Your task to perform on an android device: toggle notifications settings in the gmail app Image 0: 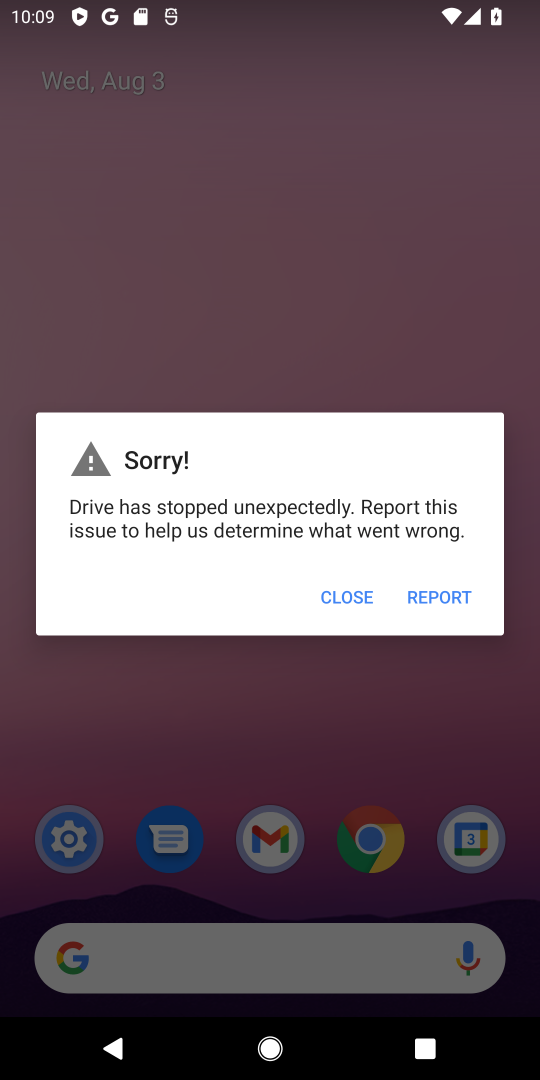
Step 0: click (332, 590)
Your task to perform on an android device: toggle notifications settings in the gmail app Image 1: 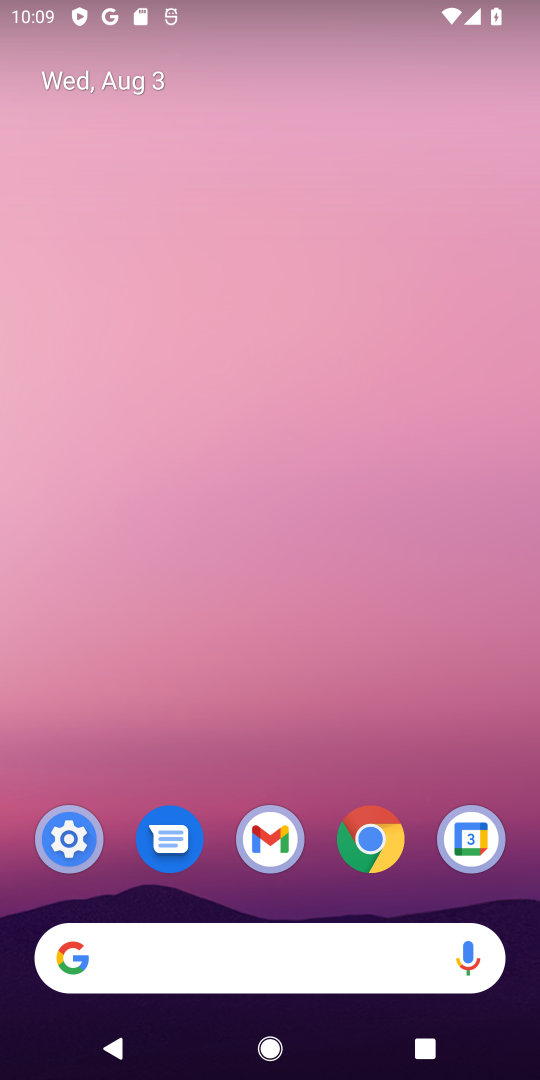
Step 1: click (282, 787)
Your task to perform on an android device: toggle notifications settings in the gmail app Image 2: 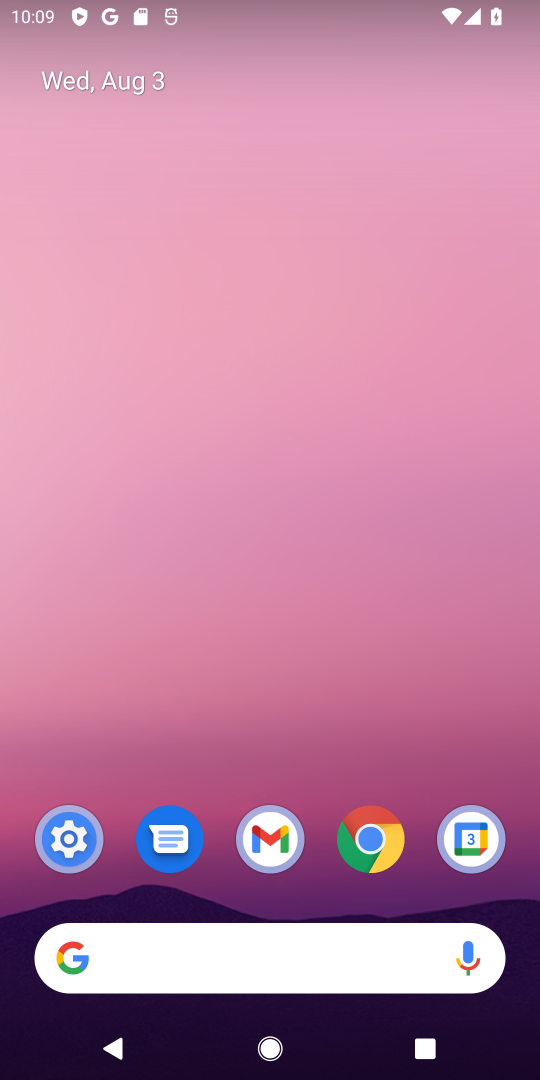
Step 2: click (268, 844)
Your task to perform on an android device: toggle notifications settings in the gmail app Image 3: 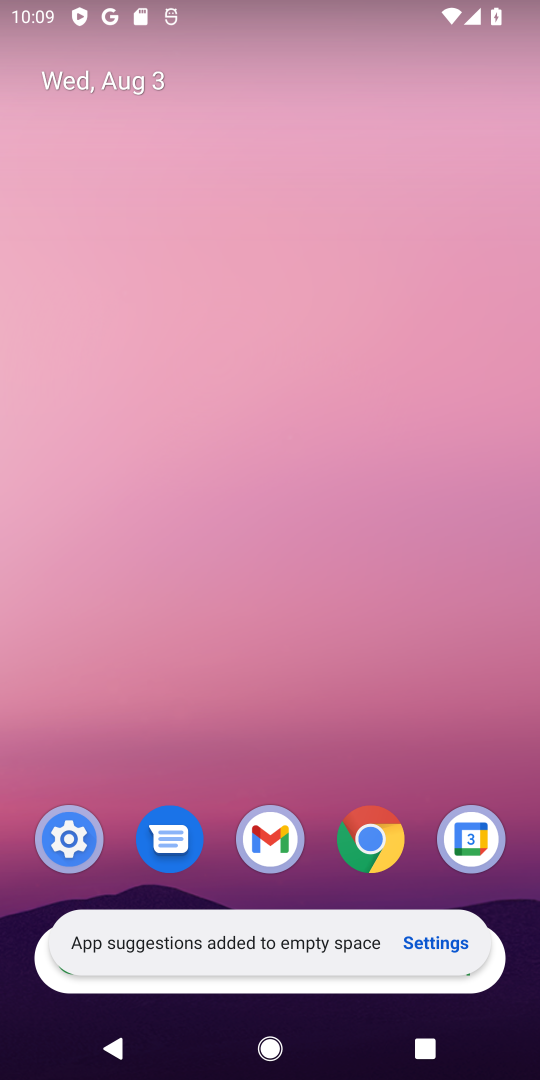
Step 3: click (272, 843)
Your task to perform on an android device: toggle notifications settings in the gmail app Image 4: 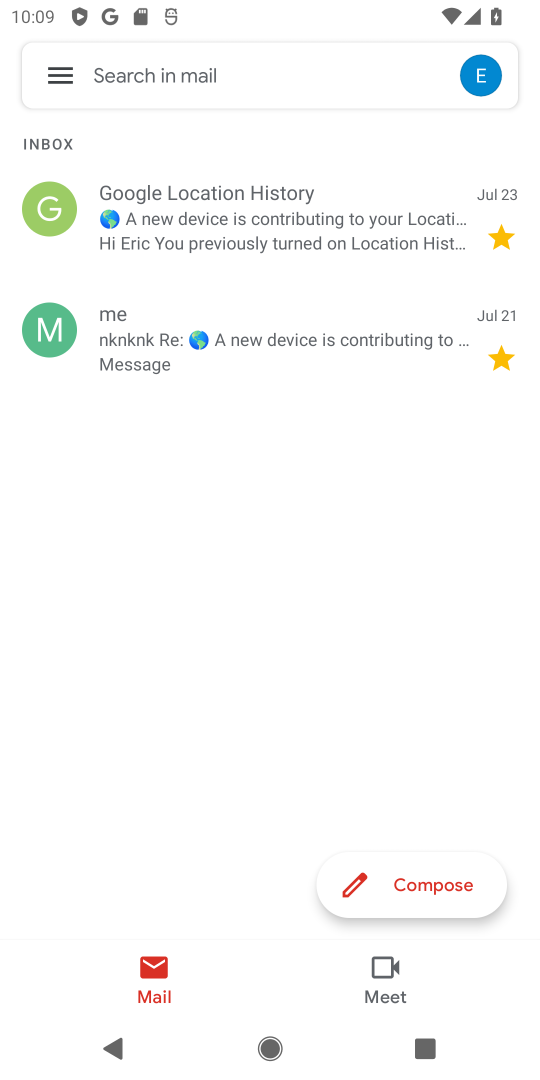
Step 4: click (58, 75)
Your task to perform on an android device: toggle notifications settings in the gmail app Image 5: 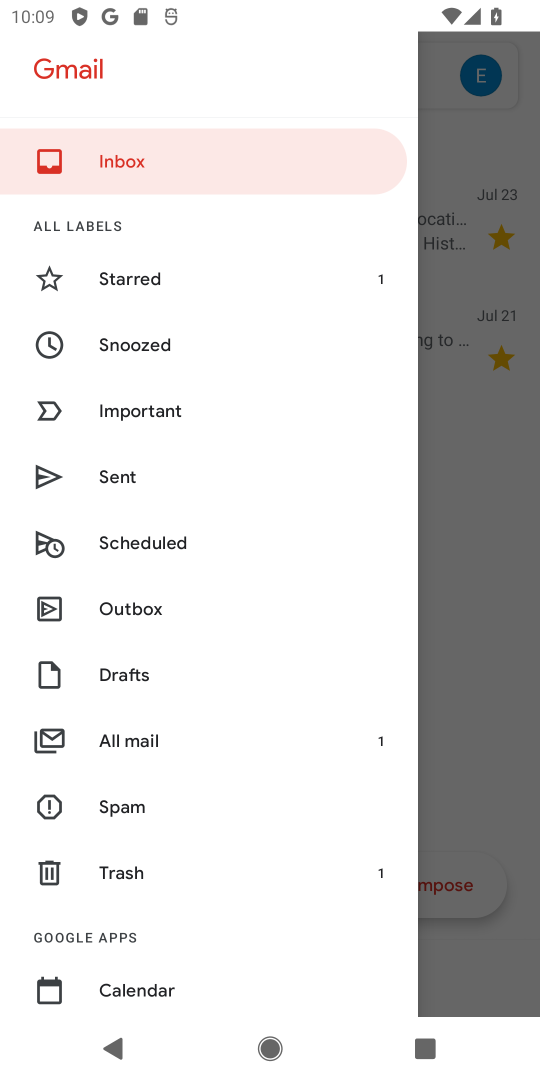
Step 5: drag from (104, 958) to (173, 442)
Your task to perform on an android device: toggle notifications settings in the gmail app Image 6: 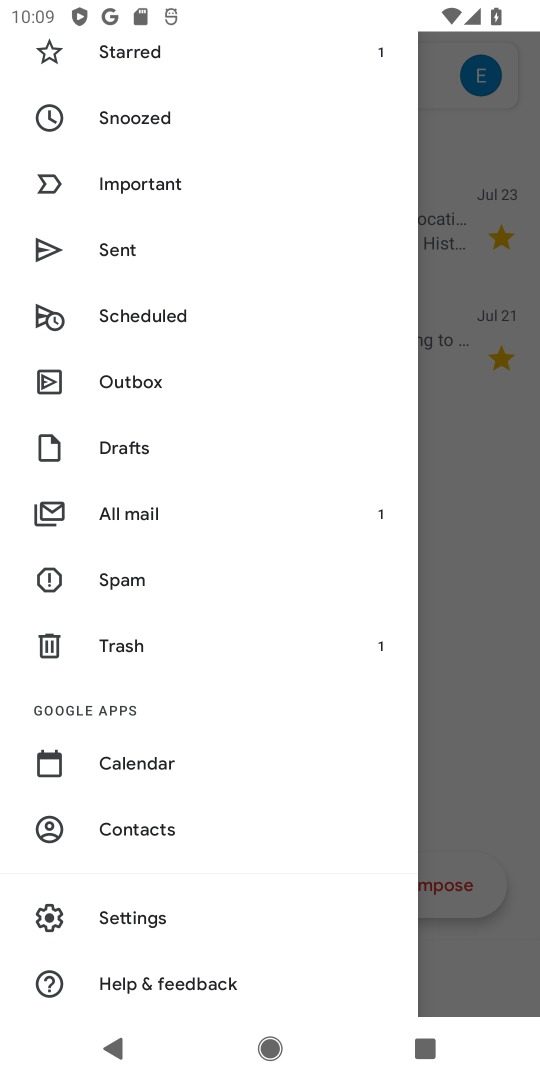
Step 6: click (146, 913)
Your task to perform on an android device: toggle notifications settings in the gmail app Image 7: 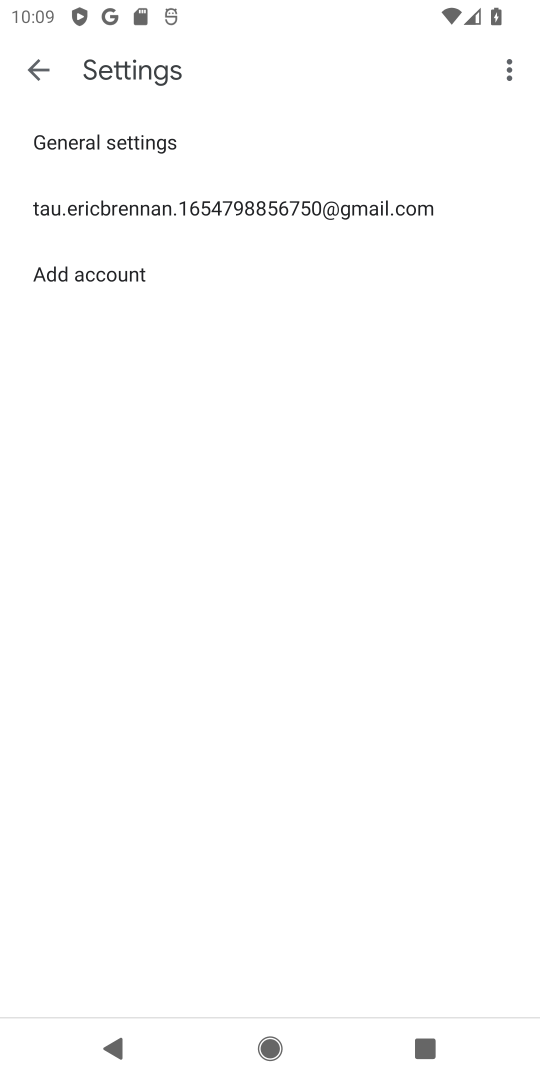
Step 7: click (142, 142)
Your task to perform on an android device: toggle notifications settings in the gmail app Image 8: 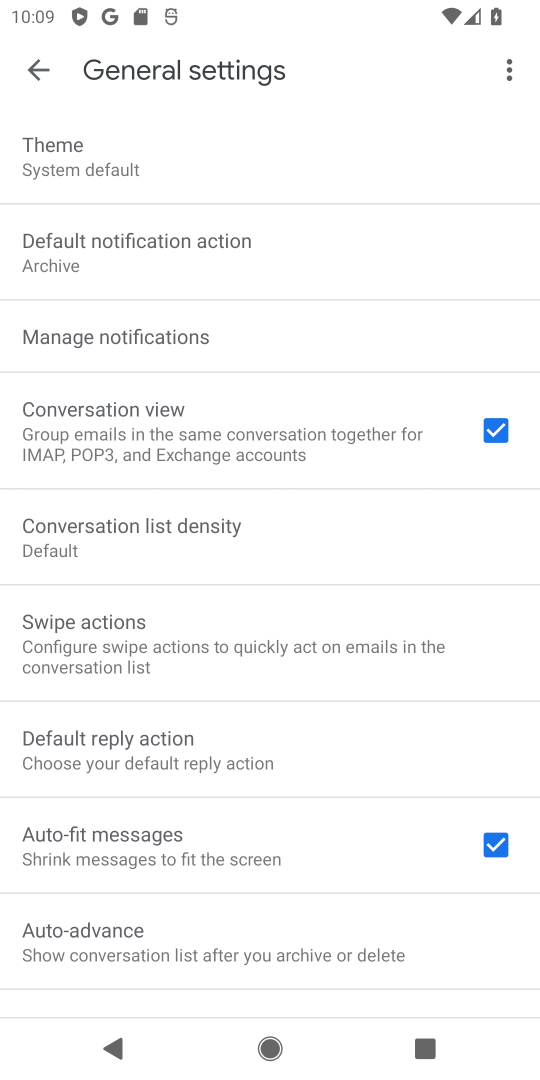
Step 8: click (172, 339)
Your task to perform on an android device: toggle notifications settings in the gmail app Image 9: 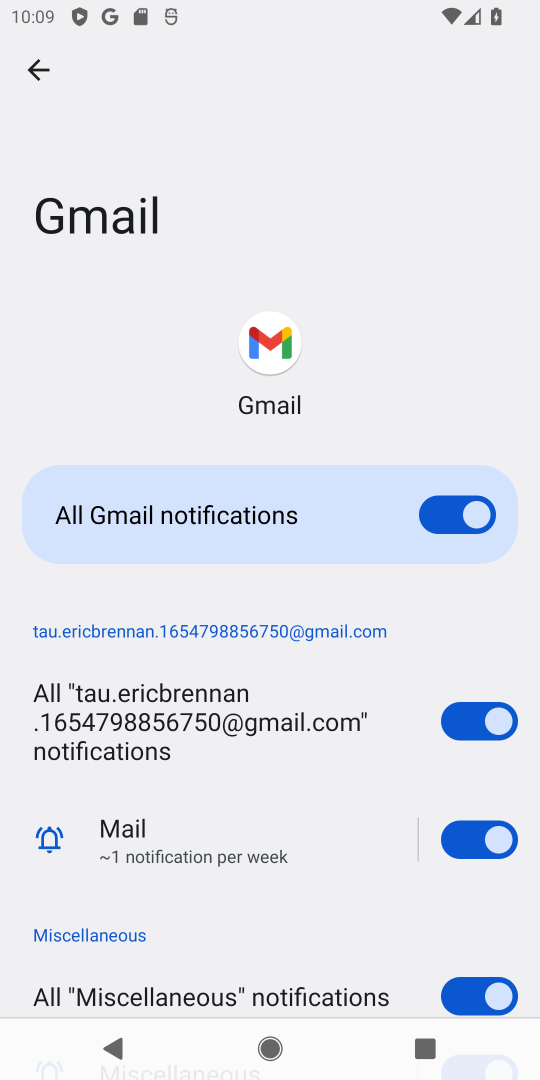
Step 9: click (421, 513)
Your task to perform on an android device: toggle notifications settings in the gmail app Image 10: 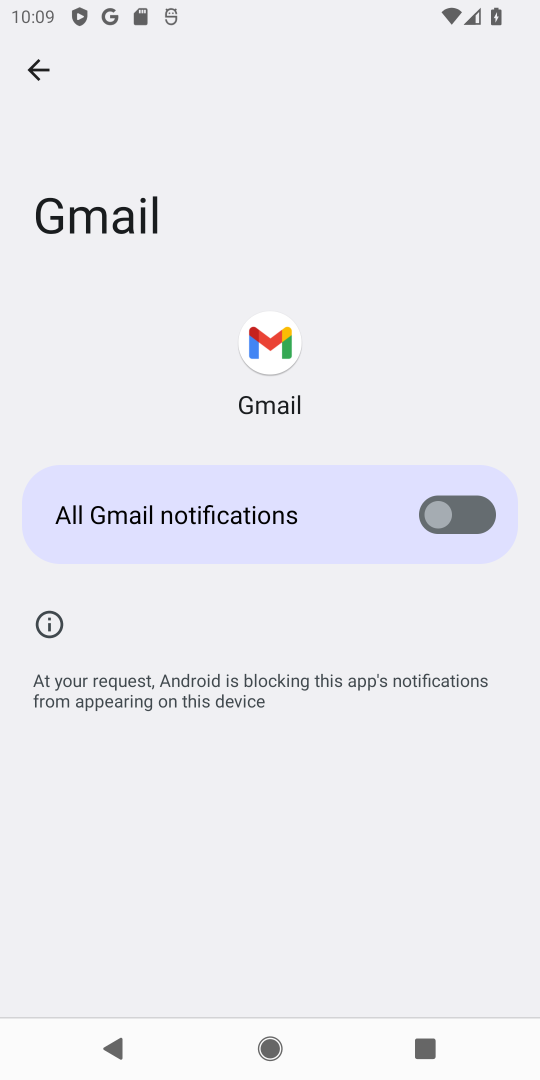
Step 10: task complete